Your task to perform on an android device: open a bookmark in the chrome app Image 0: 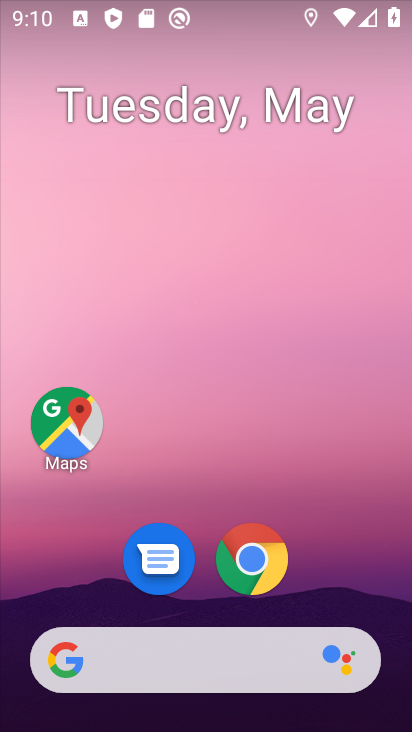
Step 0: click (250, 555)
Your task to perform on an android device: open a bookmark in the chrome app Image 1: 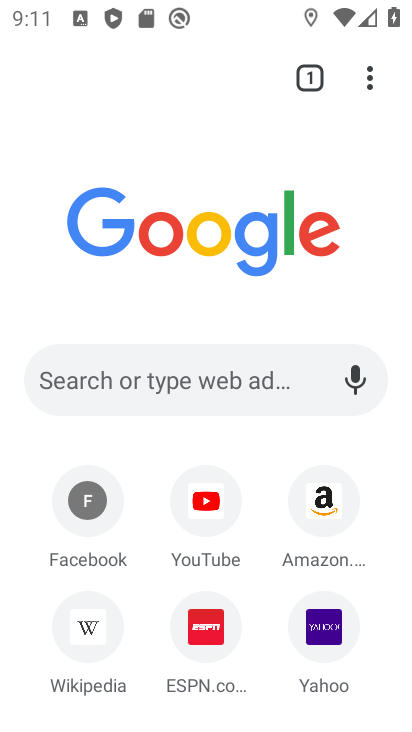
Step 1: drag from (375, 77) to (143, 301)
Your task to perform on an android device: open a bookmark in the chrome app Image 2: 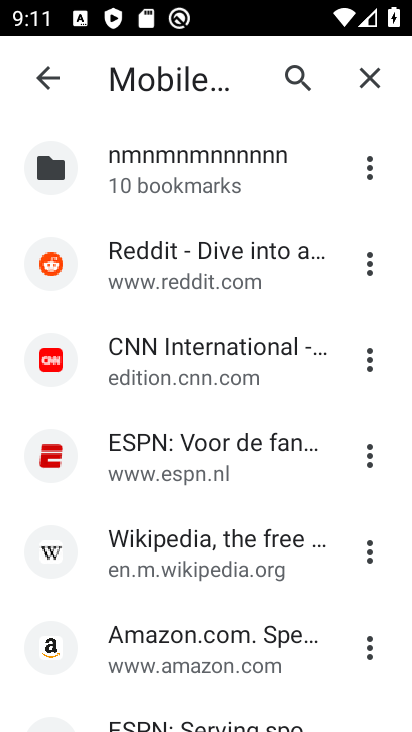
Step 2: click (179, 287)
Your task to perform on an android device: open a bookmark in the chrome app Image 3: 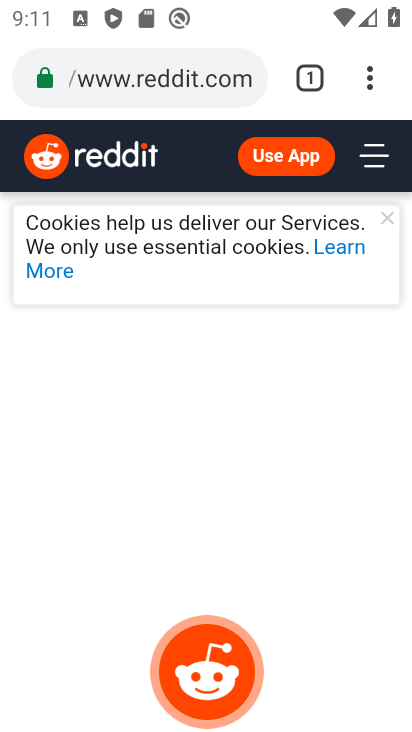
Step 3: task complete